Your task to perform on an android device: What's on my calendar tomorrow? Image 0: 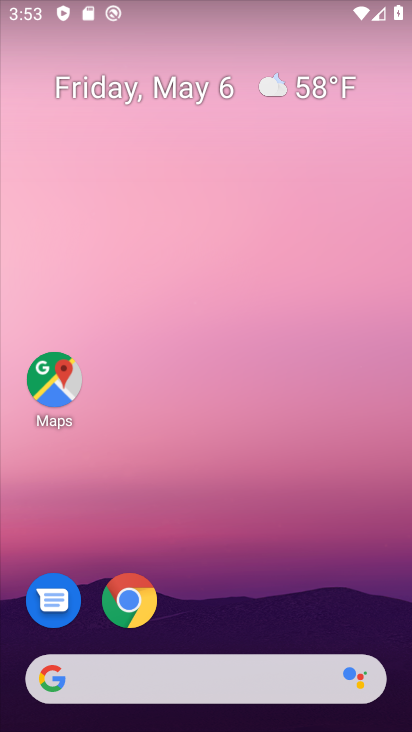
Step 0: drag from (225, 600) to (380, 47)
Your task to perform on an android device: What's on my calendar tomorrow? Image 1: 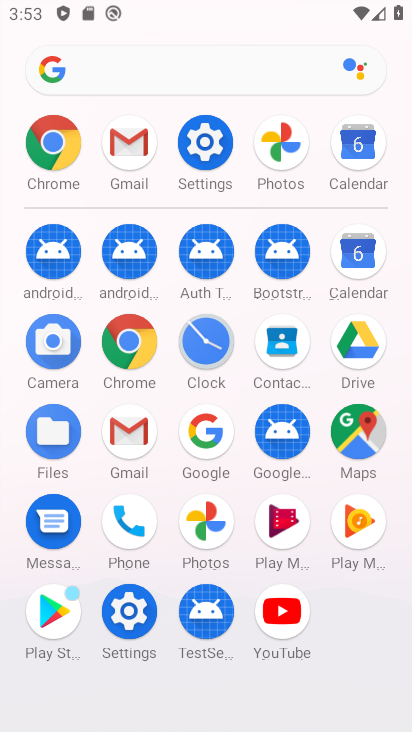
Step 1: click (359, 264)
Your task to perform on an android device: What's on my calendar tomorrow? Image 2: 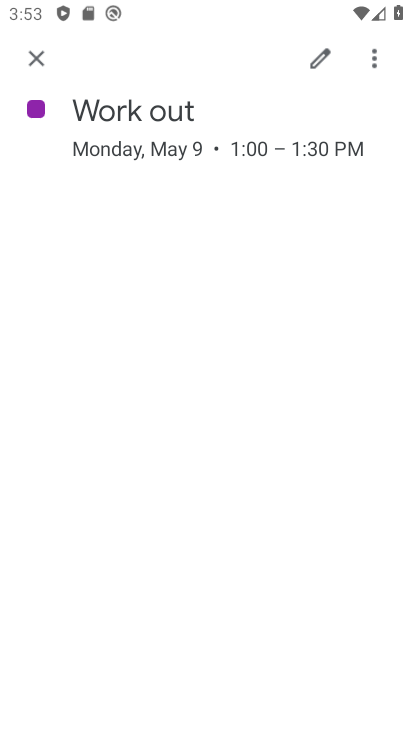
Step 2: click (41, 66)
Your task to perform on an android device: What's on my calendar tomorrow? Image 3: 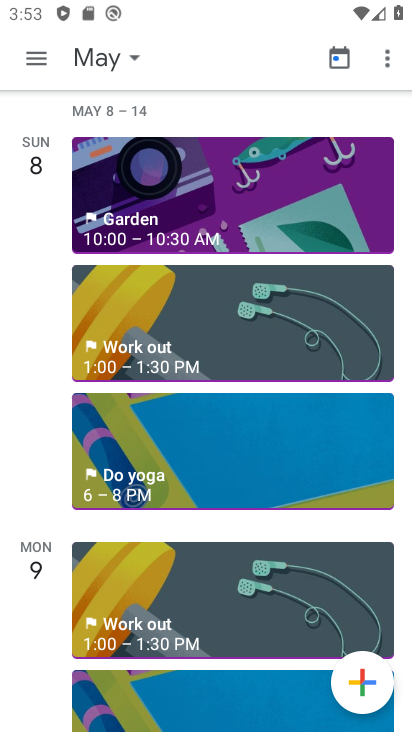
Step 3: click (40, 70)
Your task to perform on an android device: What's on my calendar tomorrow? Image 4: 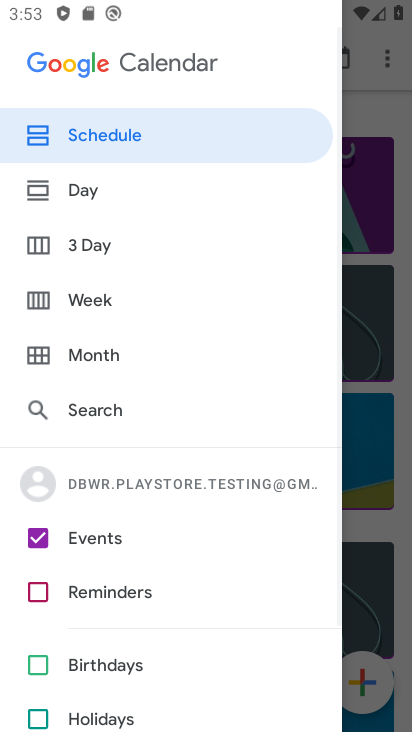
Step 4: click (108, 250)
Your task to perform on an android device: What's on my calendar tomorrow? Image 5: 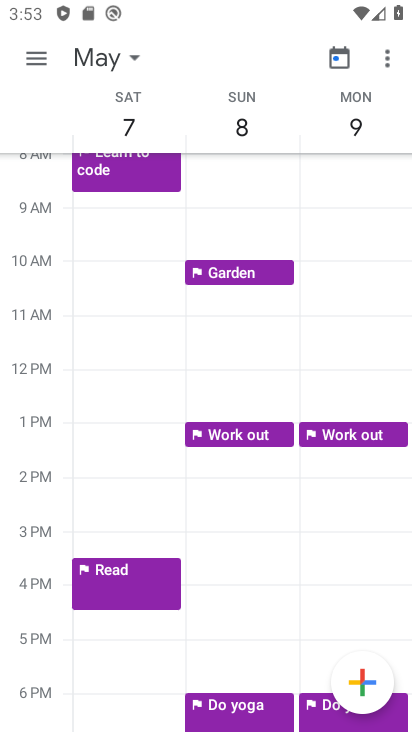
Step 5: task complete